Your task to perform on an android device: Show me productivity apps on the Play Store Image 0: 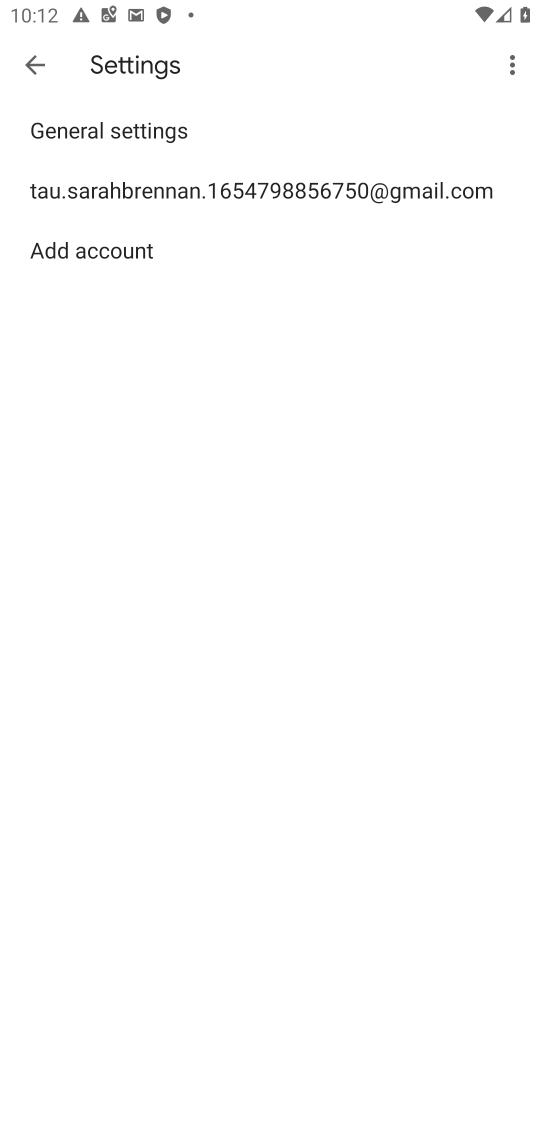
Step 0: press home button
Your task to perform on an android device: Show me productivity apps on the Play Store Image 1: 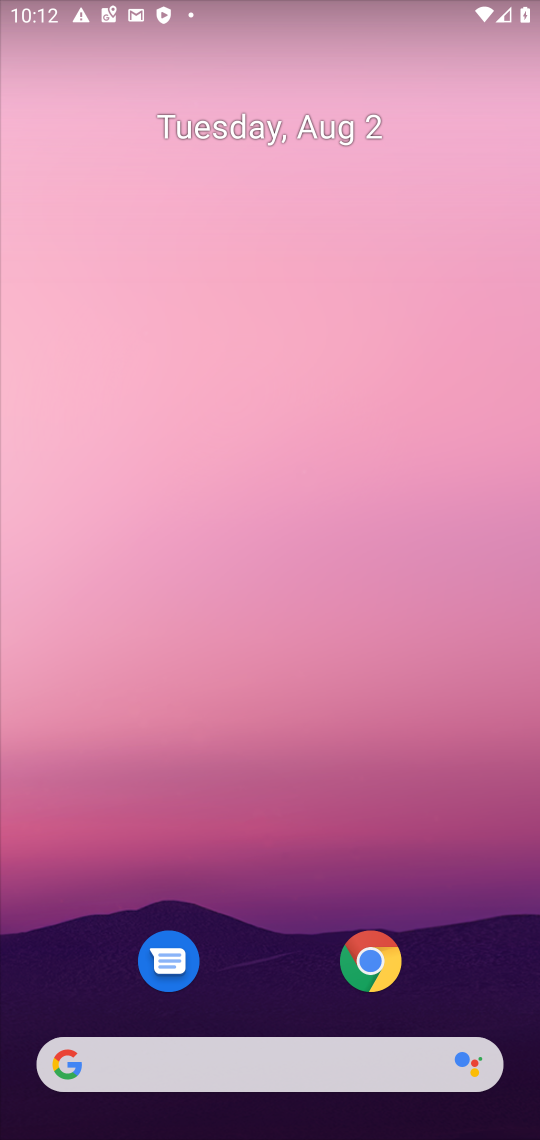
Step 1: drag from (419, 842) to (298, 57)
Your task to perform on an android device: Show me productivity apps on the Play Store Image 2: 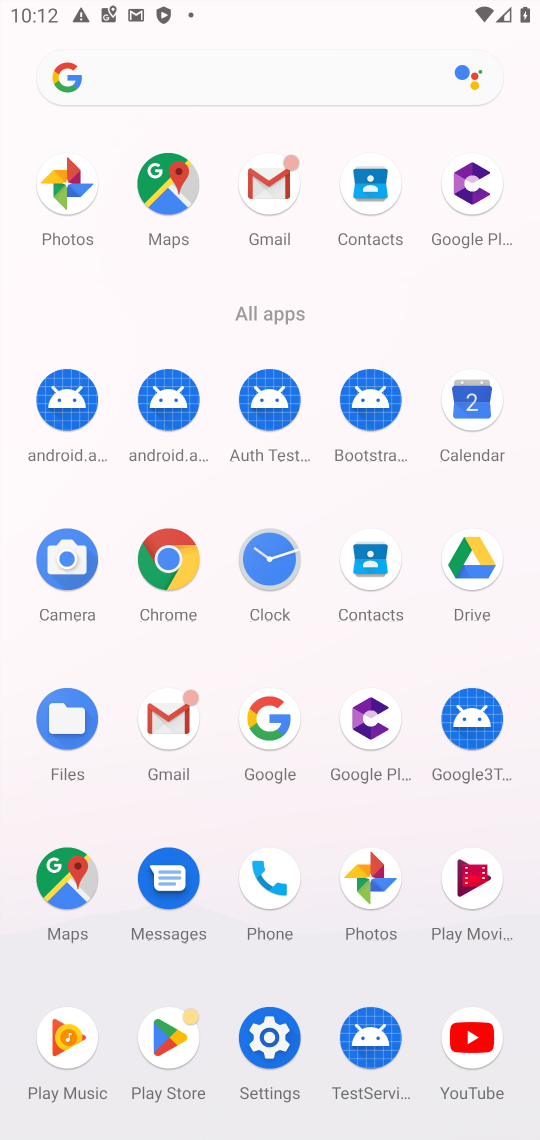
Step 2: click (481, 1045)
Your task to perform on an android device: Show me productivity apps on the Play Store Image 3: 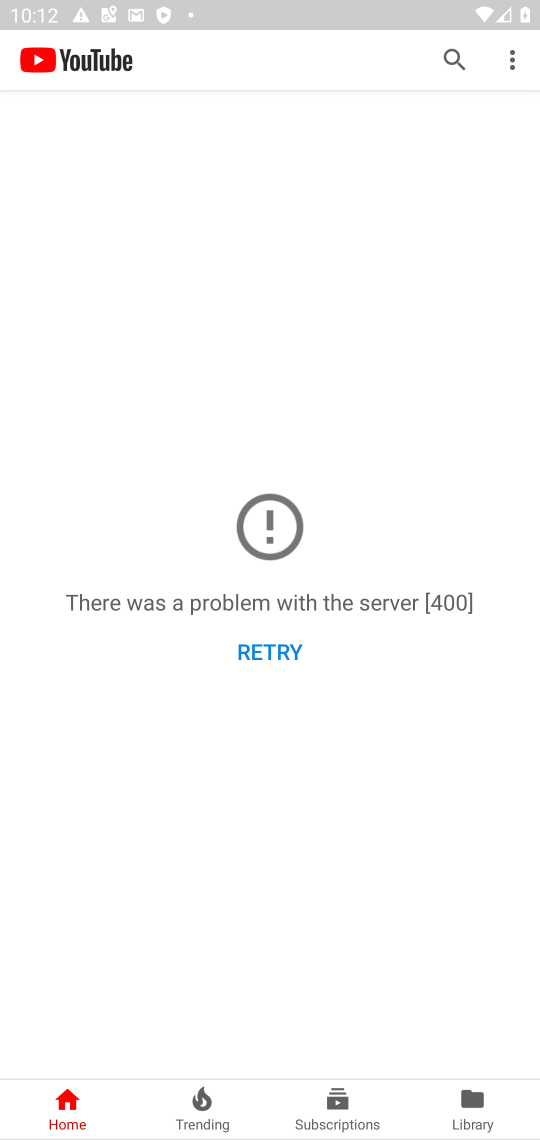
Step 3: click (459, 53)
Your task to perform on an android device: Show me productivity apps on the Play Store Image 4: 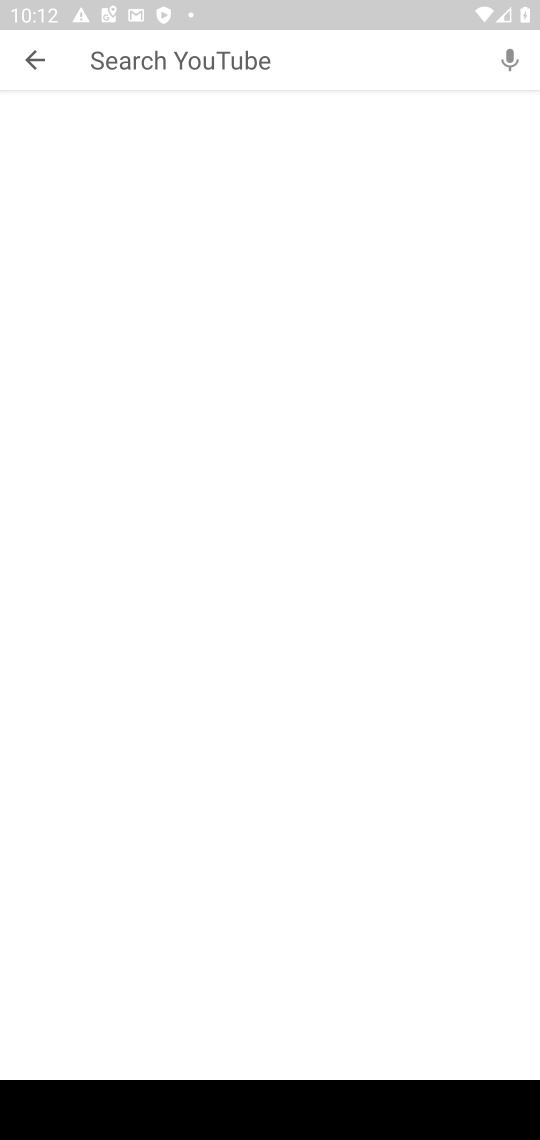
Step 4: click (375, 62)
Your task to perform on an android device: Show me productivity apps on the Play Store Image 5: 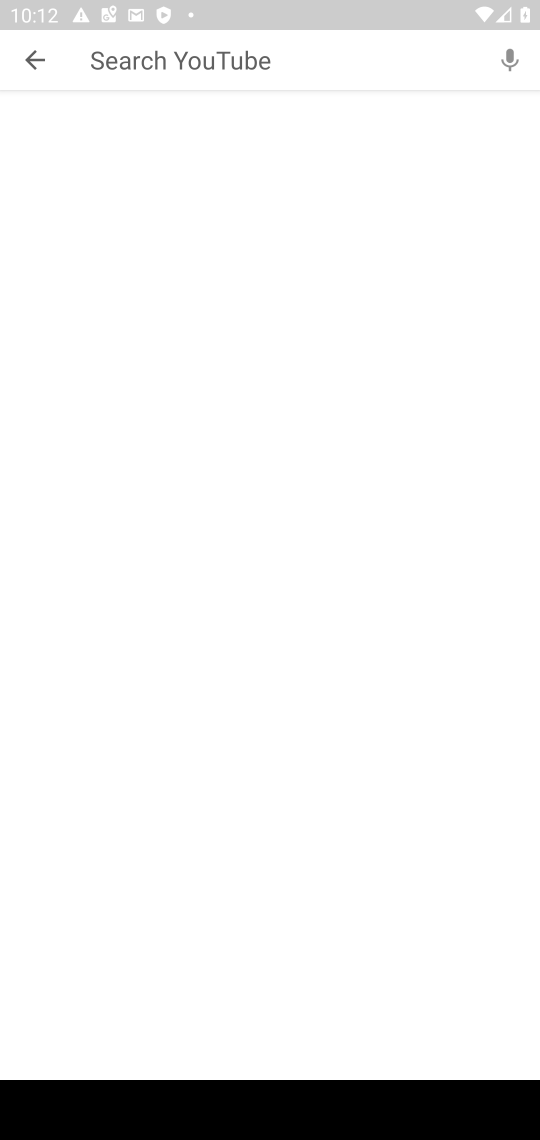
Step 5: type "productivity apps"
Your task to perform on an android device: Show me productivity apps on the Play Store Image 6: 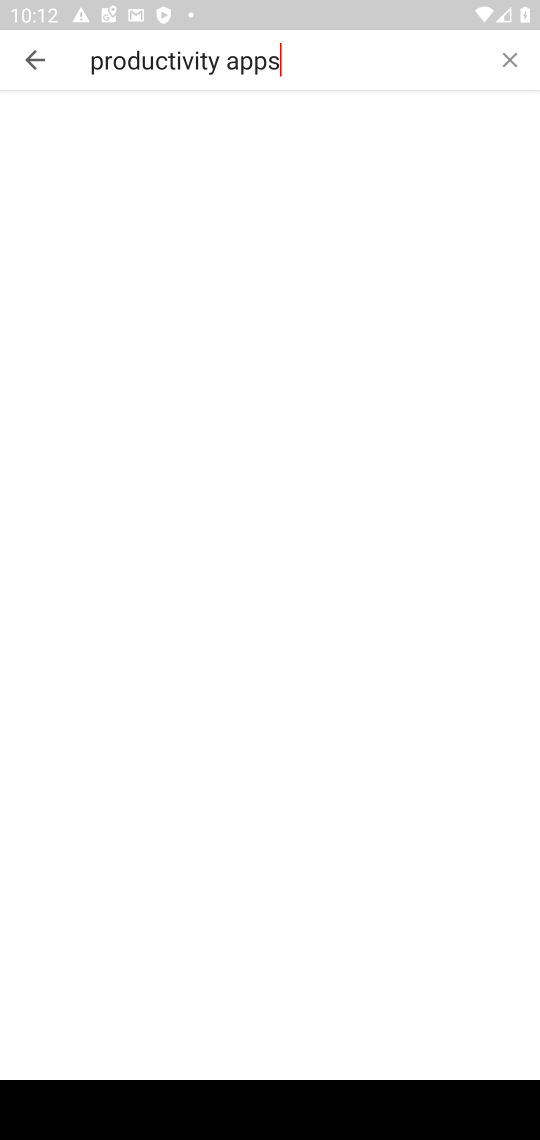
Step 6: type ""
Your task to perform on an android device: Show me productivity apps on the Play Store Image 7: 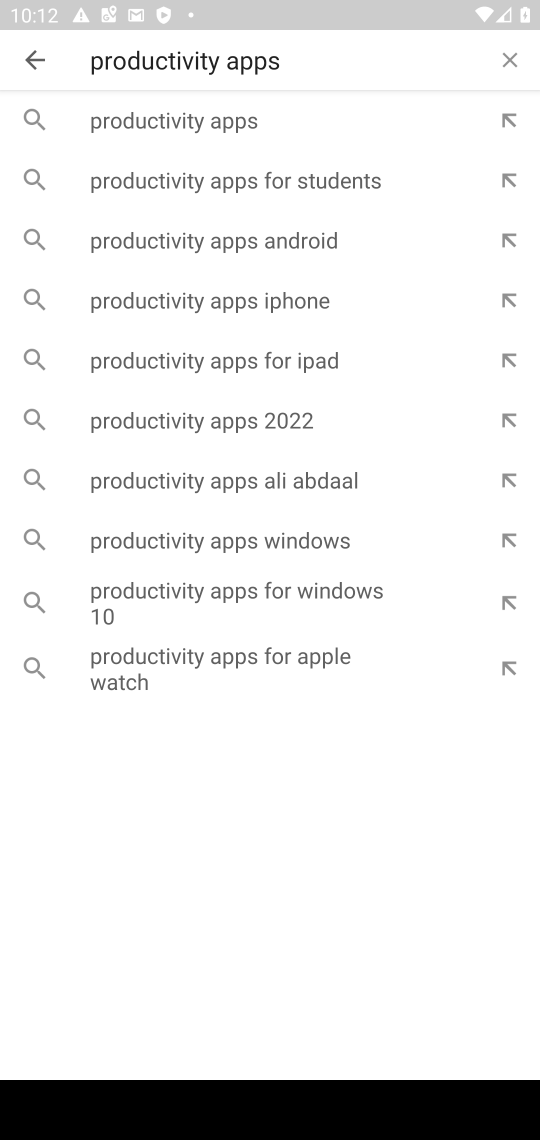
Step 7: press home button
Your task to perform on an android device: Show me productivity apps on the Play Store Image 8: 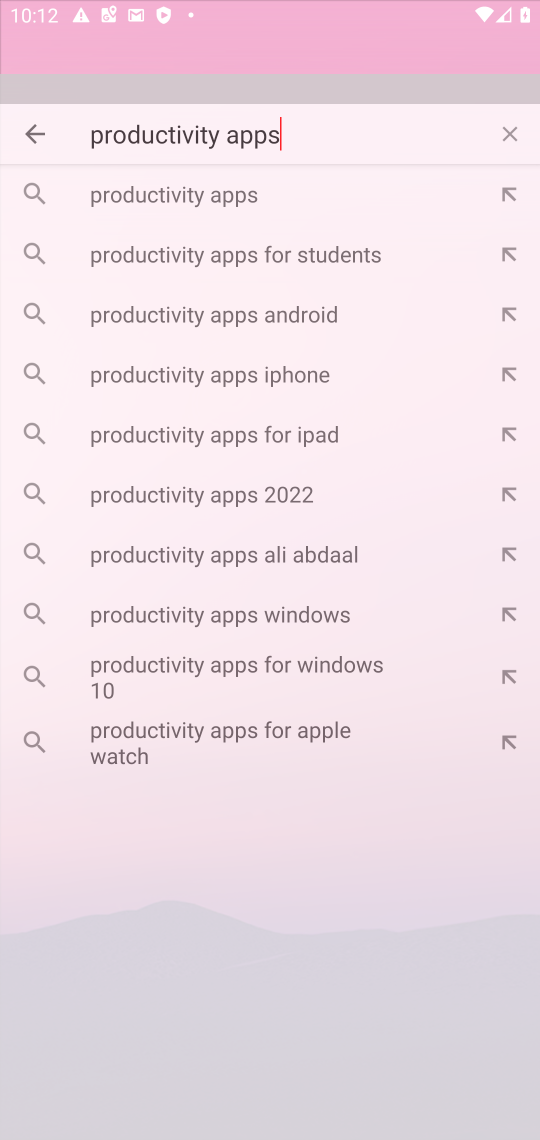
Step 8: click (244, 994)
Your task to perform on an android device: Show me productivity apps on the Play Store Image 9: 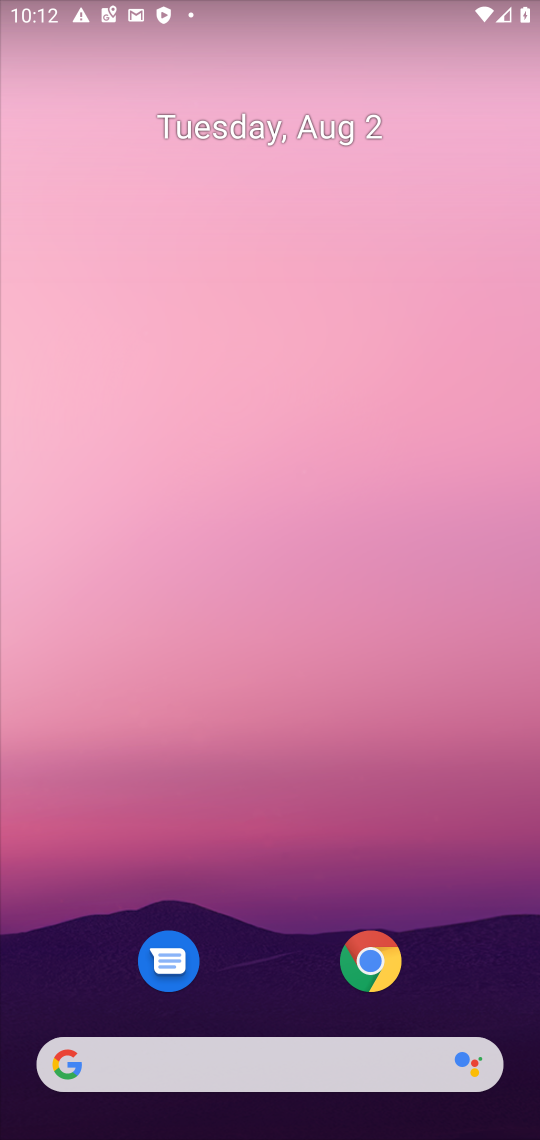
Step 9: drag from (317, 986) to (283, 207)
Your task to perform on an android device: Show me productivity apps on the Play Store Image 10: 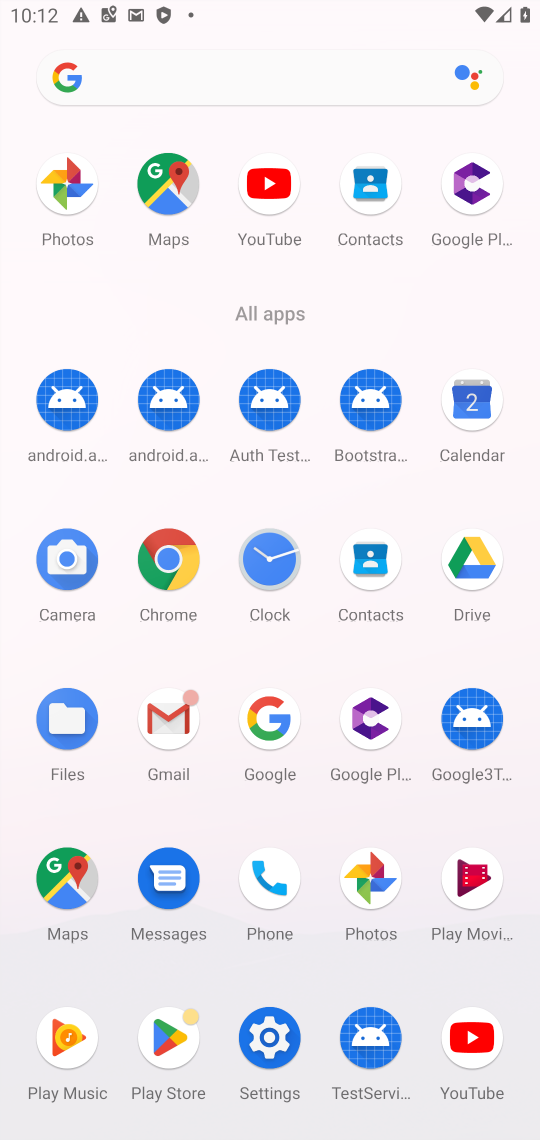
Step 10: click (166, 1048)
Your task to perform on an android device: Show me productivity apps on the Play Store Image 11: 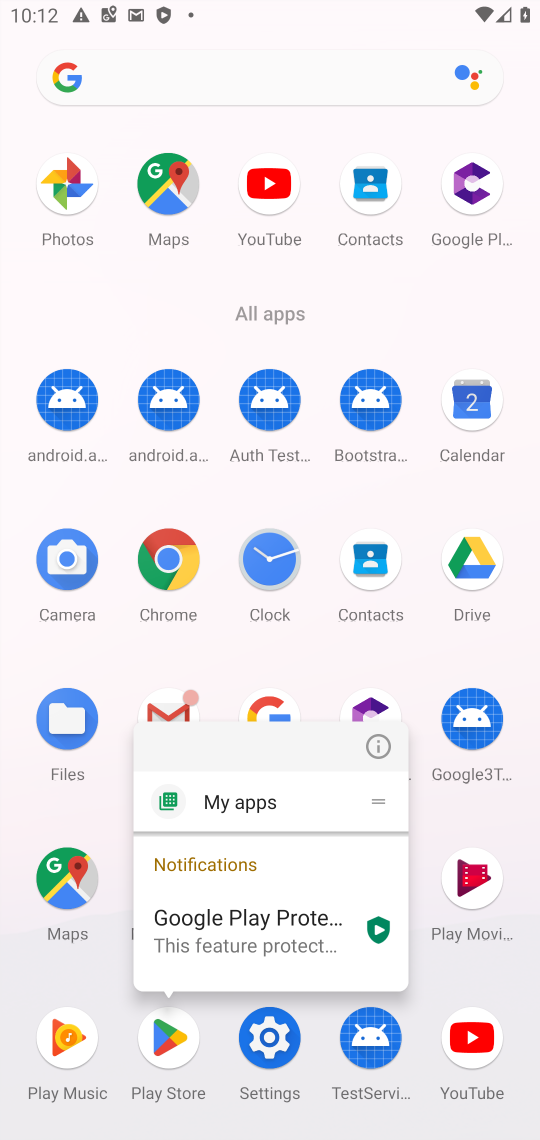
Step 11: click (166, 1056)
Your task to perform on an android device: Show me productivity apps on the Play Store Image 12: 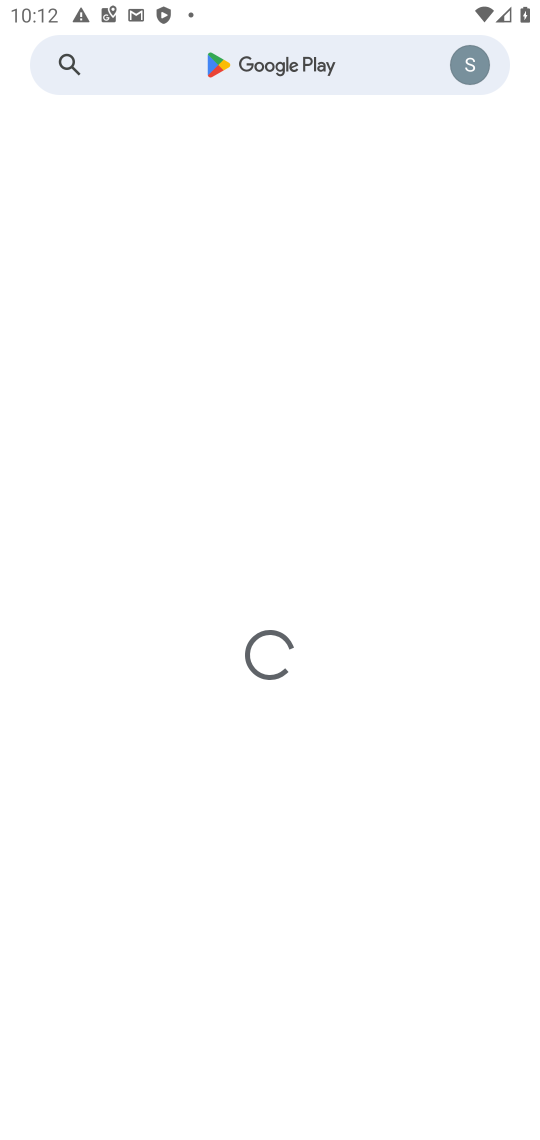
Step 12: click (226, 68)
Your task to perform on an android device: Show me productivity apps on the Play Store Image 13: 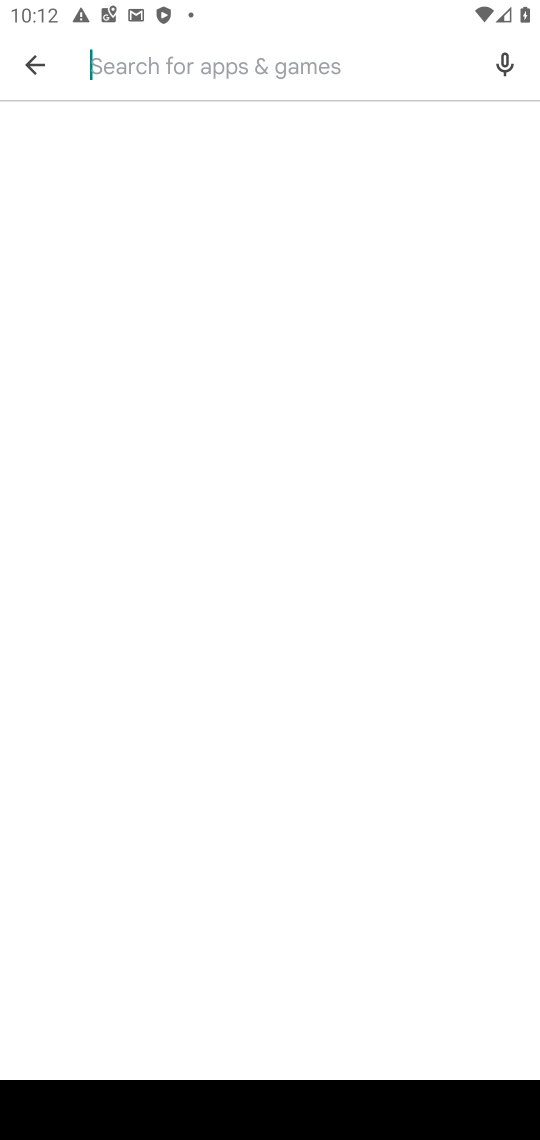
Step 13: type "productivity apps"
Your task to perform on an android device: Show me productivity apps on the Play Store Image 14: 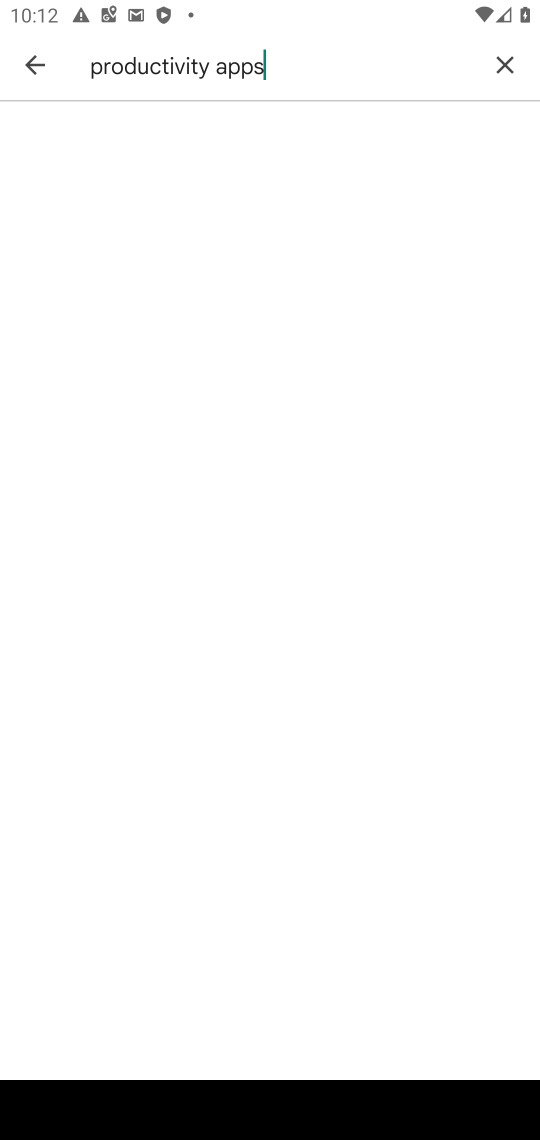
Step 14: type ""
Your task to perform on an android device: Show me productivity apps on the Play Store Image 15: 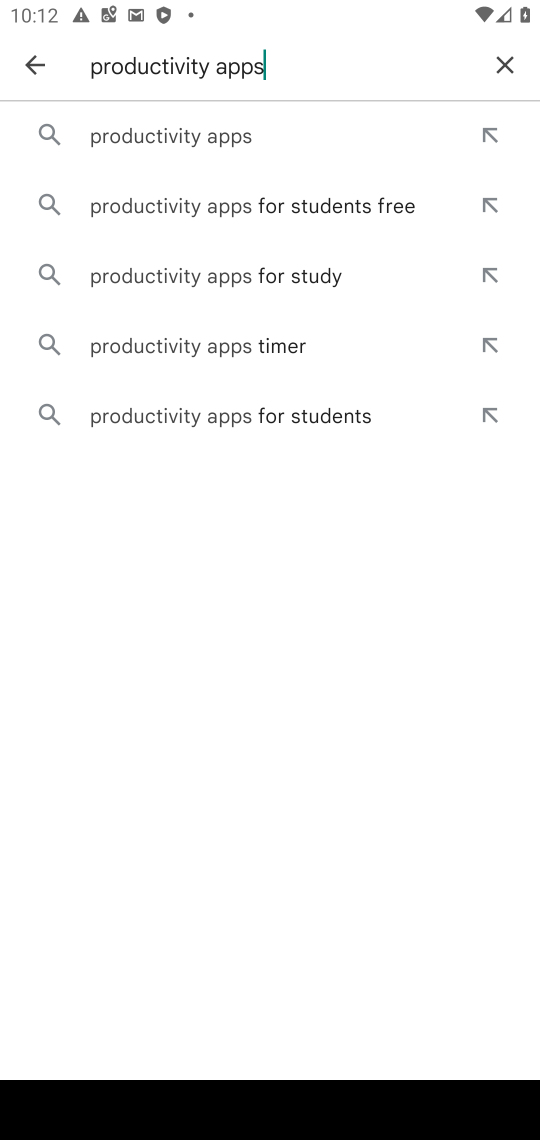
Step 15: click (163, 145)
Your task to perform on an android device: Show me productivity apps on the Play Store Image 16: 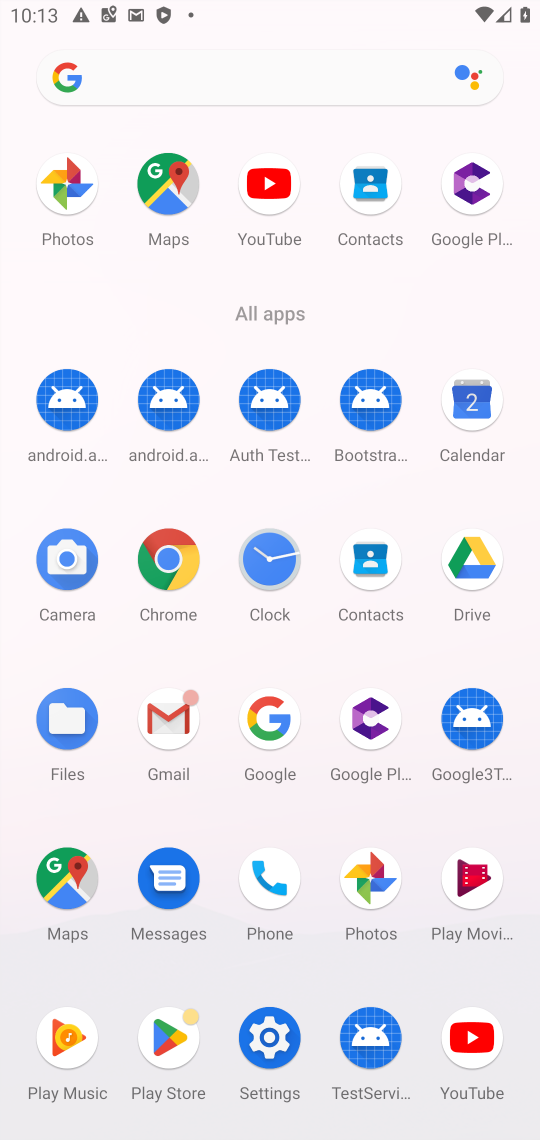
Step 16: click (190, 1053)
Your task to perform on an android device: Show me productivity apps on the Play Store Image 17: 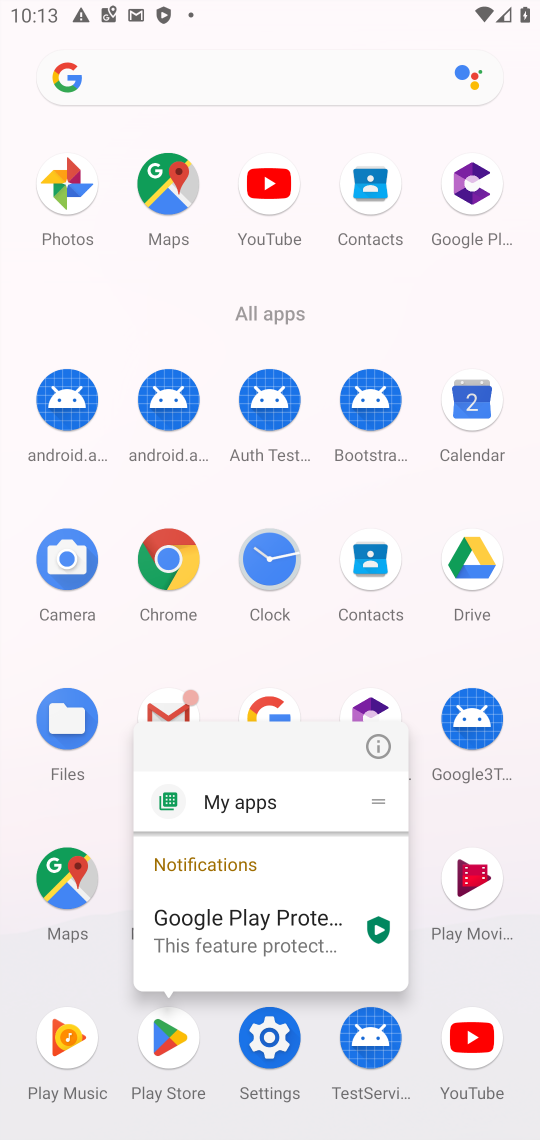
Step 17: click (193, 1045)
Your task to perform on an android device: Show me productivity apps on the Play Store Image 18: 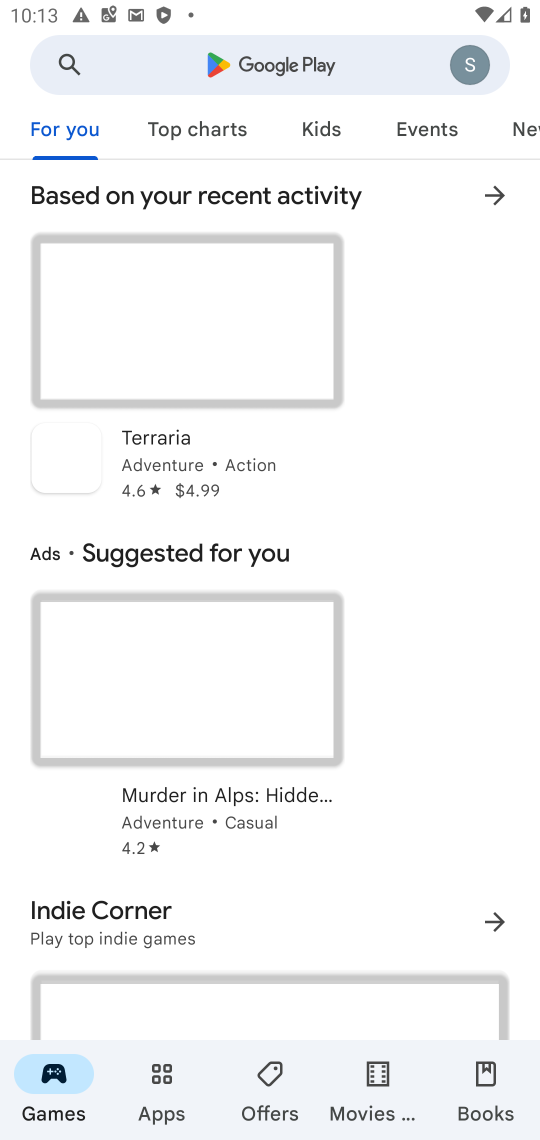
Step 18: click (253, 69)
Your task to perform on an android device: Show me productivity apps on the Play Store Image 19: 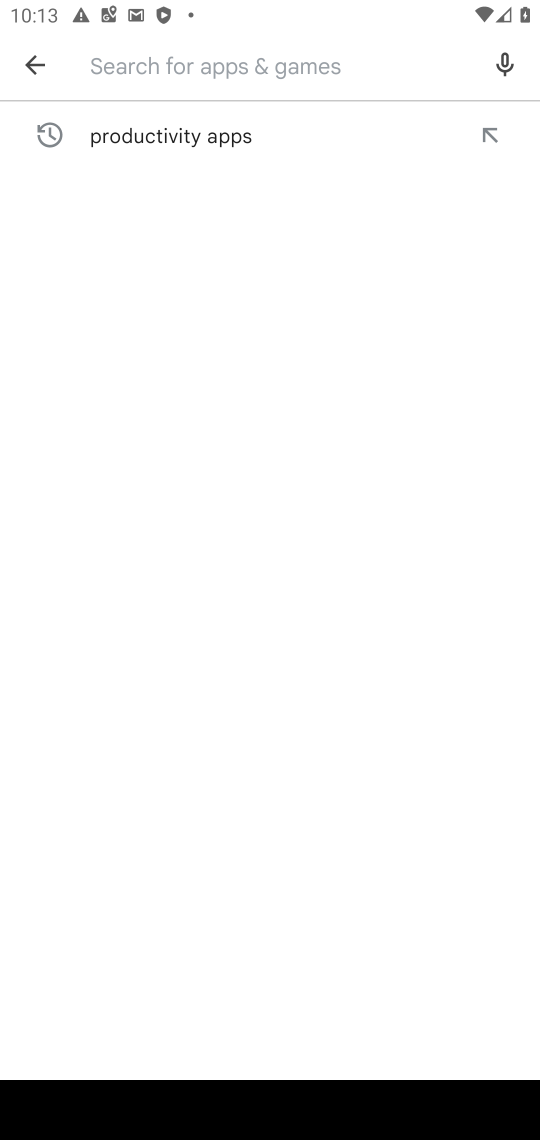
Step 19: type "productivity apps"
Your task to perform on an android device: Show me productivity apps on the Play Store Image 20: 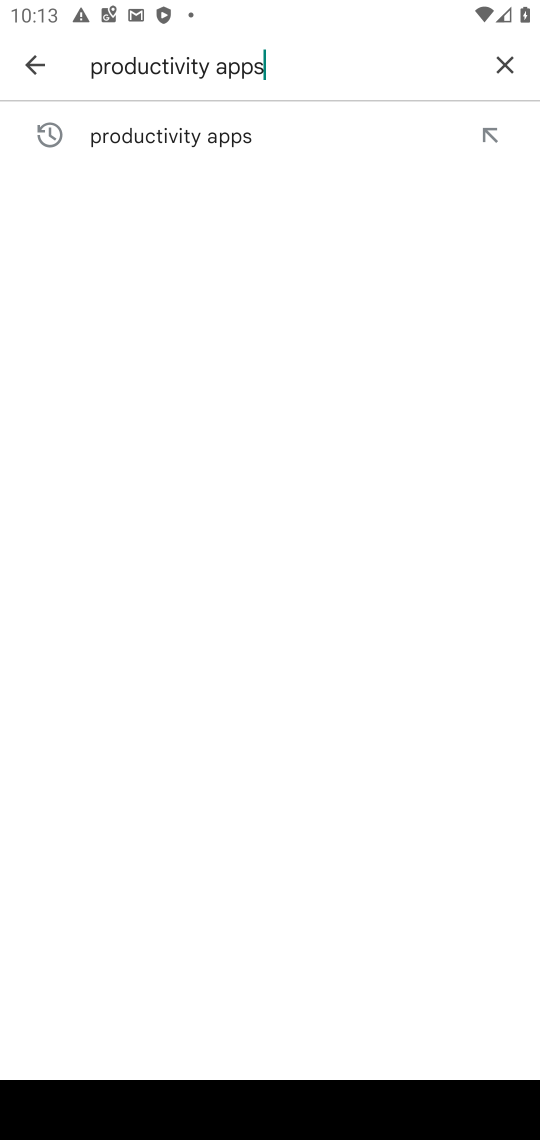
Step 20: type ""
Your task to perform on an android device: Show me productivity apps on the Play Store Image 21: 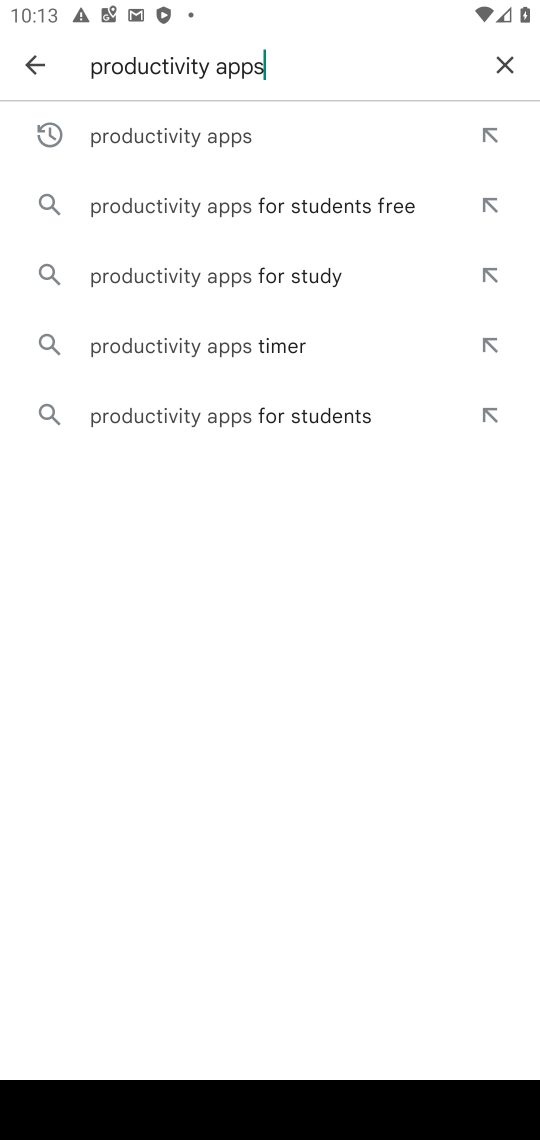
Step 21: click (136, 138)
Your task to perform on an android device: Show me productivity apps on the Play Store Image 22: 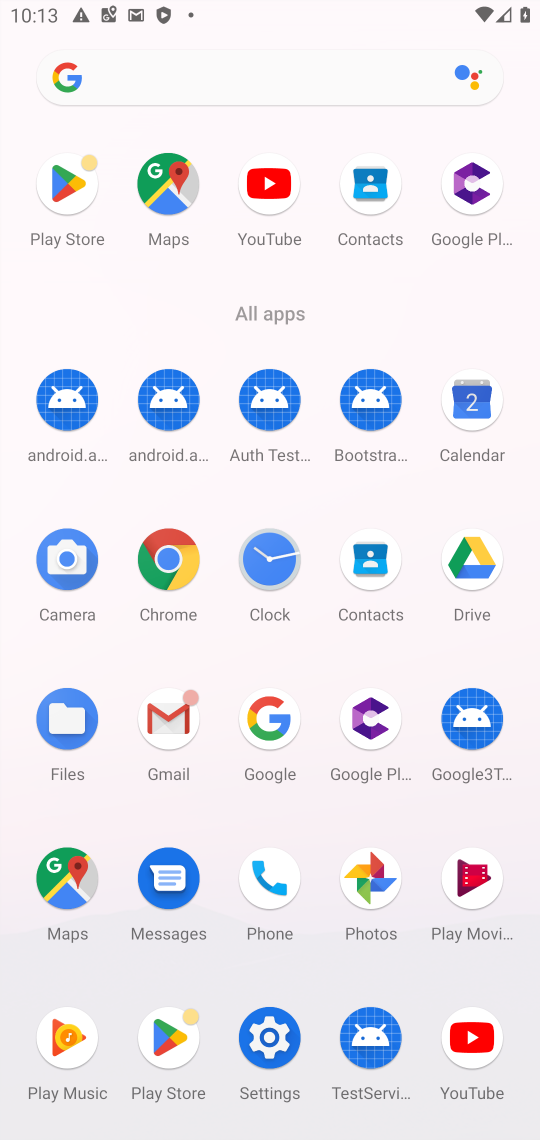
Step 22: task complete